Your task to perform on an android device: turn on showing notifications on the lock screen Image 0: 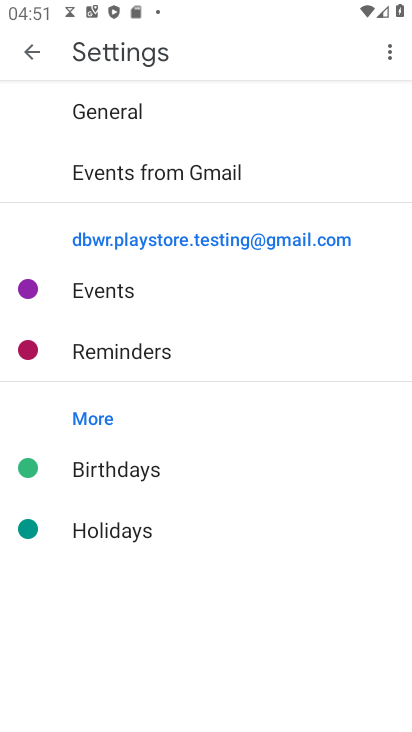
Step 0: press back button
Your task to perform on an android device: turn on showing notifications on the lock screen Image 1: 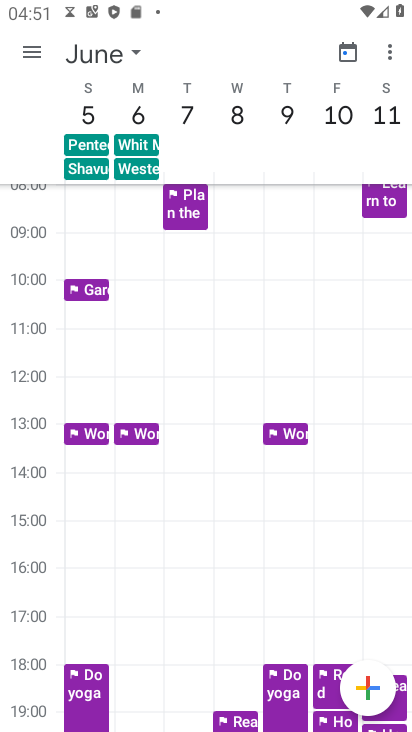
Step 1: press back button
Your task to perform on an android device: turn on showing notifications on the lock screen Image 2: 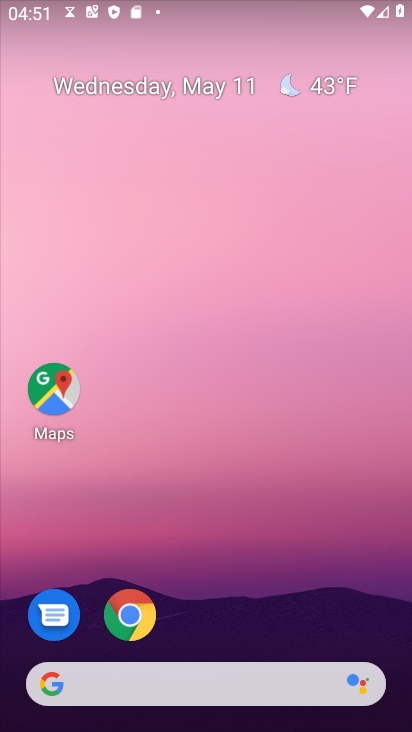
Step 2: drag from (256, 581) to (236, 56)
Your task to perform on an android device: turn on showing notifications on the lock screen Image 3: 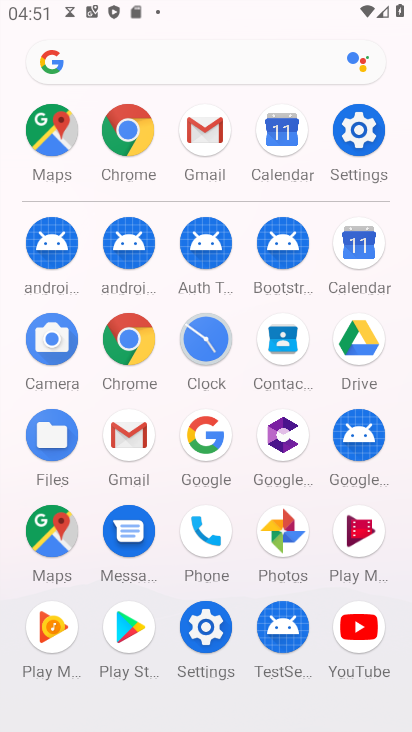
Step 3: click (359, 131)
Your task to perform on an android device: turn on showing notifications on the lock screen Image 4: 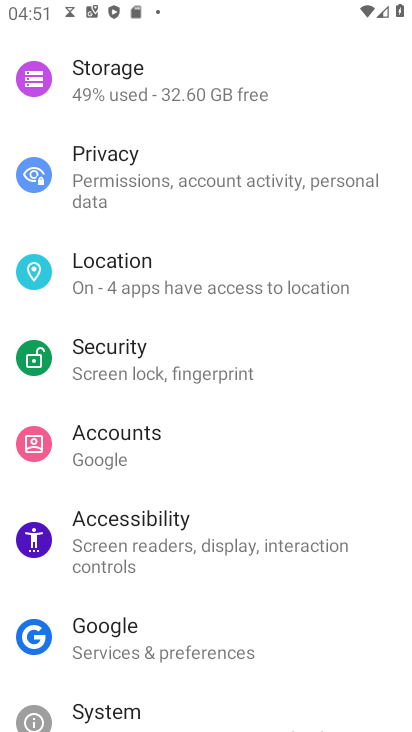
Step 4: drag from (245, 93) to (268, 448)
Your task to perform on an android device: turn on showing notifications on the lock screen Image 5: 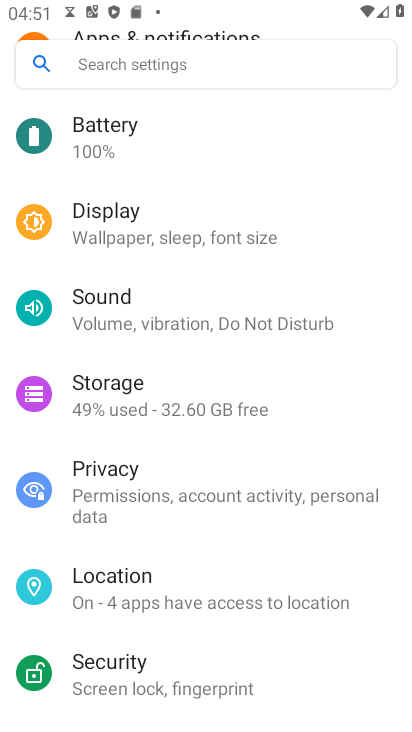
Step 5: drag from (293, 198) to (283, 551)
Your task to perform on an android device: turn on showing notifications on the lock screen Image 6: 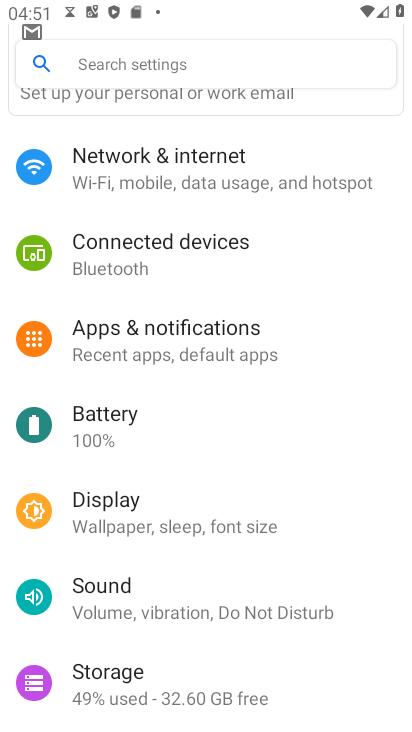
Step 6: click (182, 327)
Your task to perform on an android device: turn on showing notifications on the lock screen Image 7: 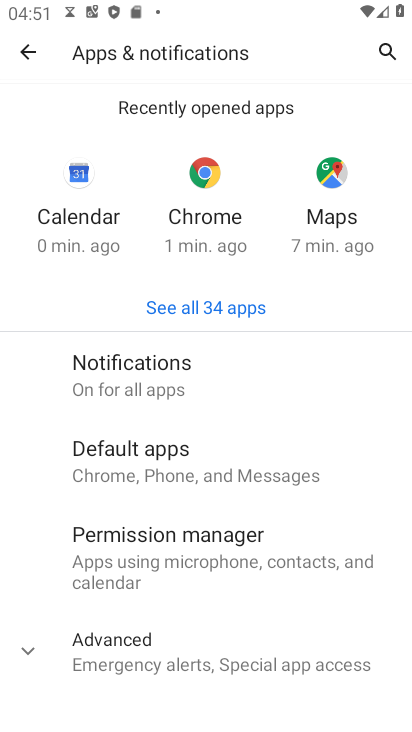
Step 7: click (218, 370)
Your task to perform on an android device: turn on showing notifications on the lock screen Image 8: 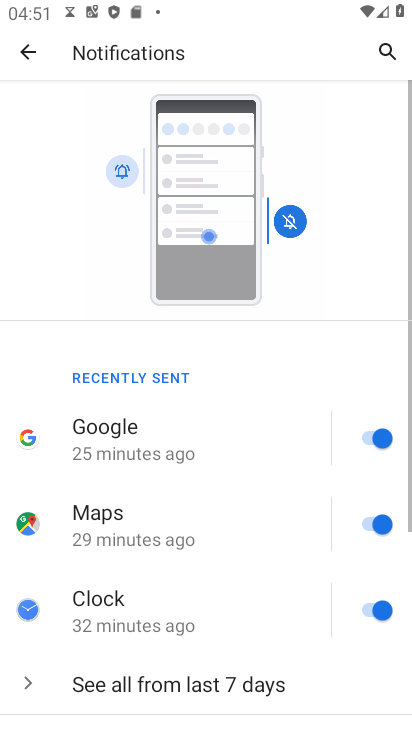
Step 8: drag from (174, 632) to (224, 87)
Your task to perform on an android device: turn on showing notifications on the lock screen Image 9: 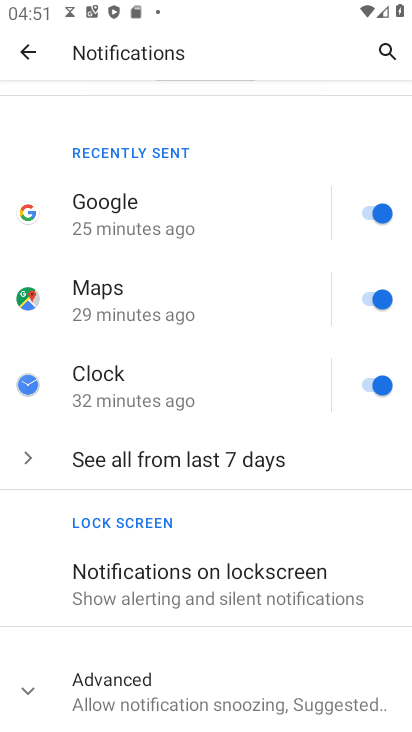
Step 9: click (202, 562)
Your task to perform on an android device: turn on showing notifications on the lock screen Image 10: 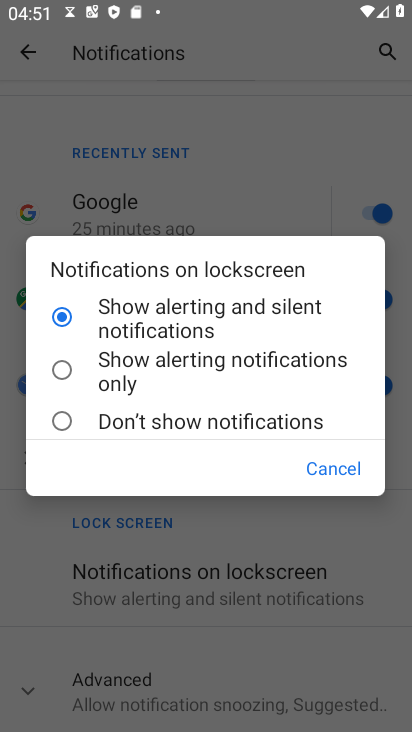
Step 10: click (229, 311)
Your task to perform on an android device: turn on showing notifications on the lock screen Image 11: 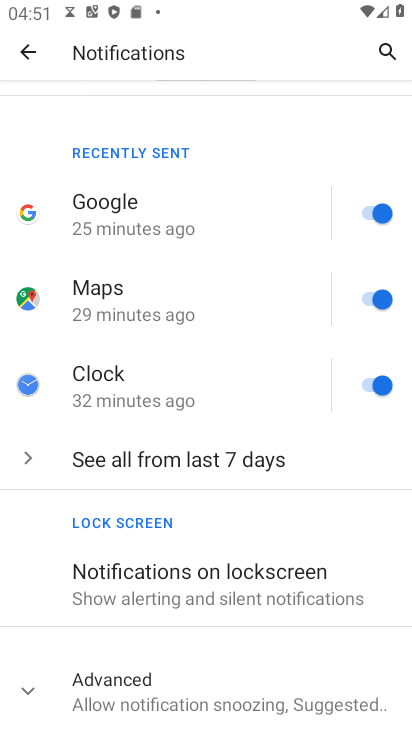
Step 11: task complete